Your task to perform on an android device: check storage Image 0: 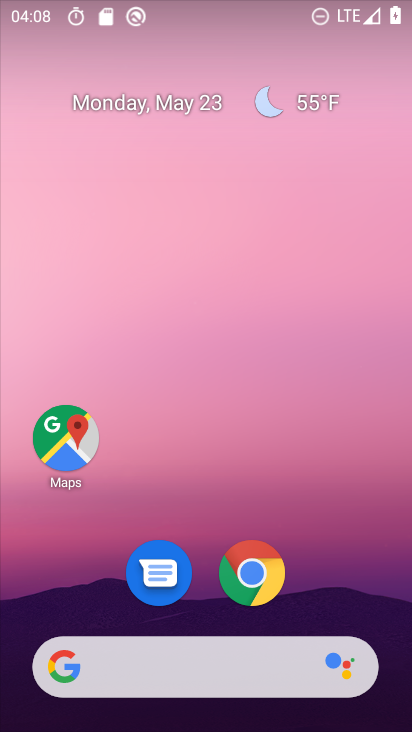
Step 0: drag from (323, 604) to (228, 64)
Your task to perform on an android device: check storage Image 1: 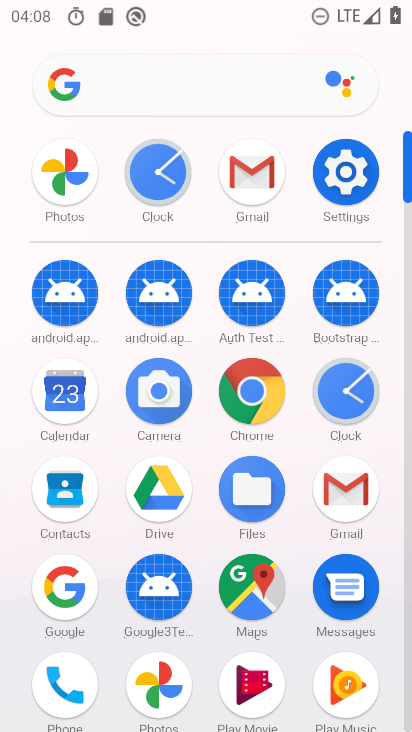
Step 1: click (344, 166)
Your task to perform on an android device: check storage Image 2: 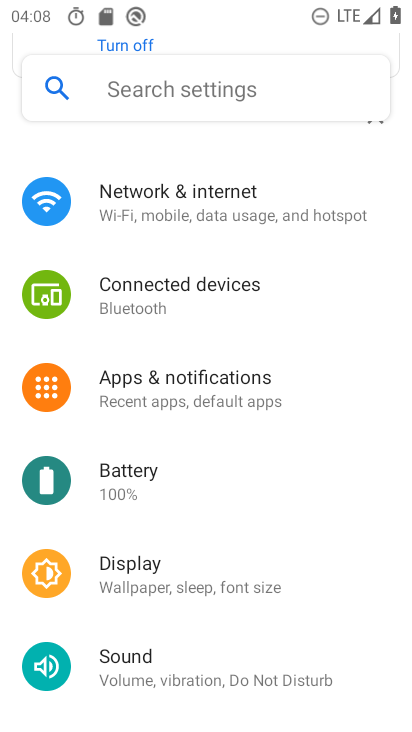
Step 2: drag from (196, 544) to (239, 190)
Your task to perform on an android device: check storage Image 3: 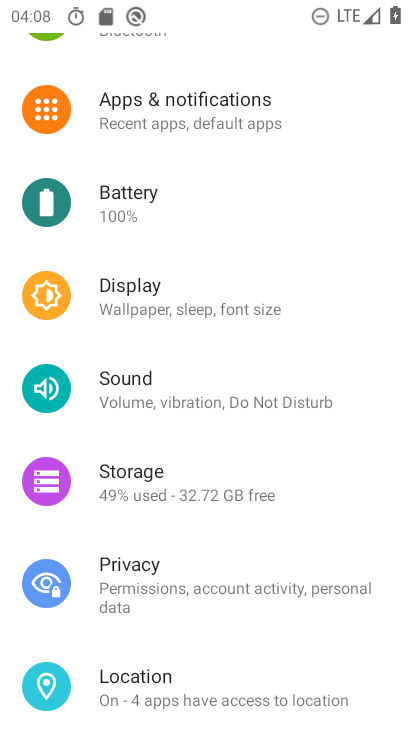
Step 3: click (165, 496)
Your task to perform on an android device: check storage Image 4: 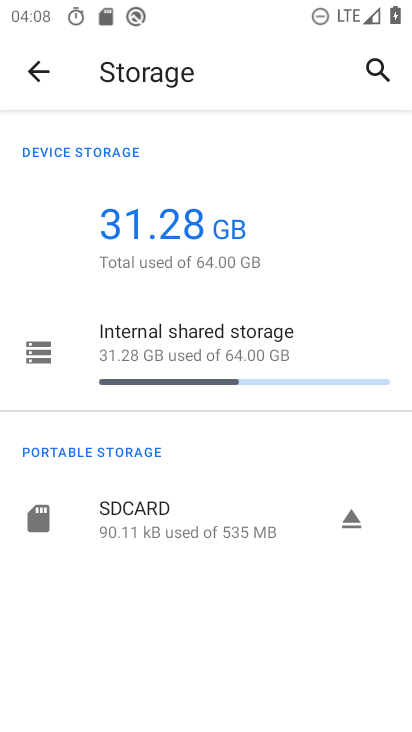
Step 4: task complete